Your task to perform on an android device: open sync settings in chrome Image 0: 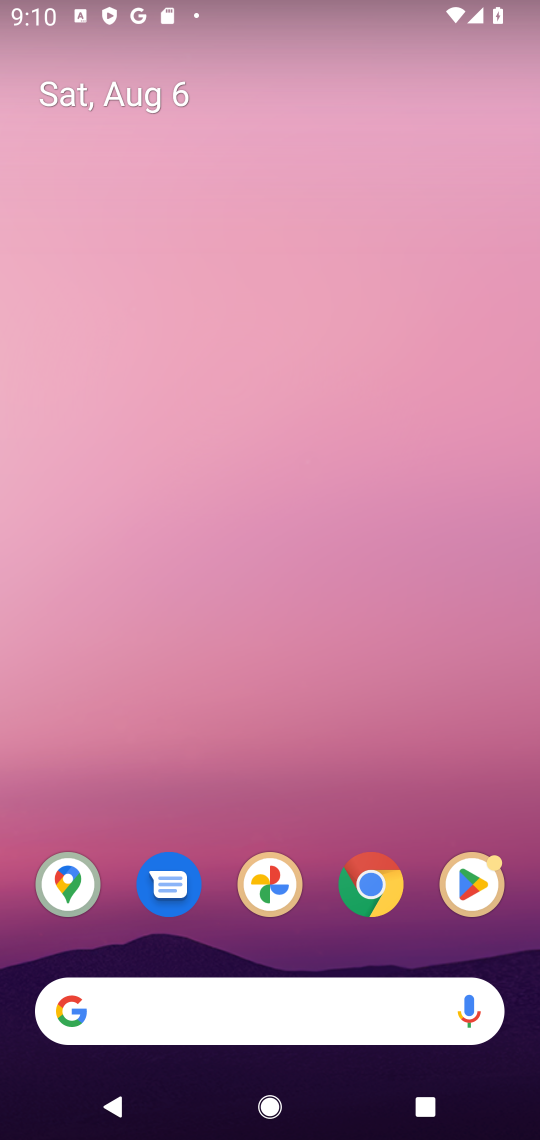
Step 0: click (374, 886)
Your task to perform on an android device: open sync settings in chrome Image 1: 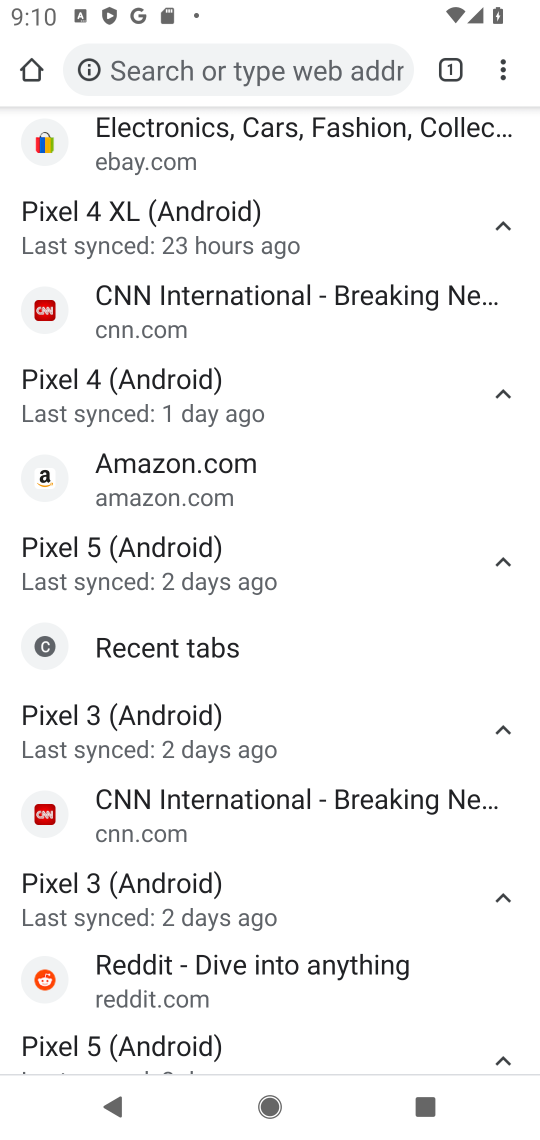
Step 1: press home button
Your task to perform on an android device: open sync settings in chrome Image 2: 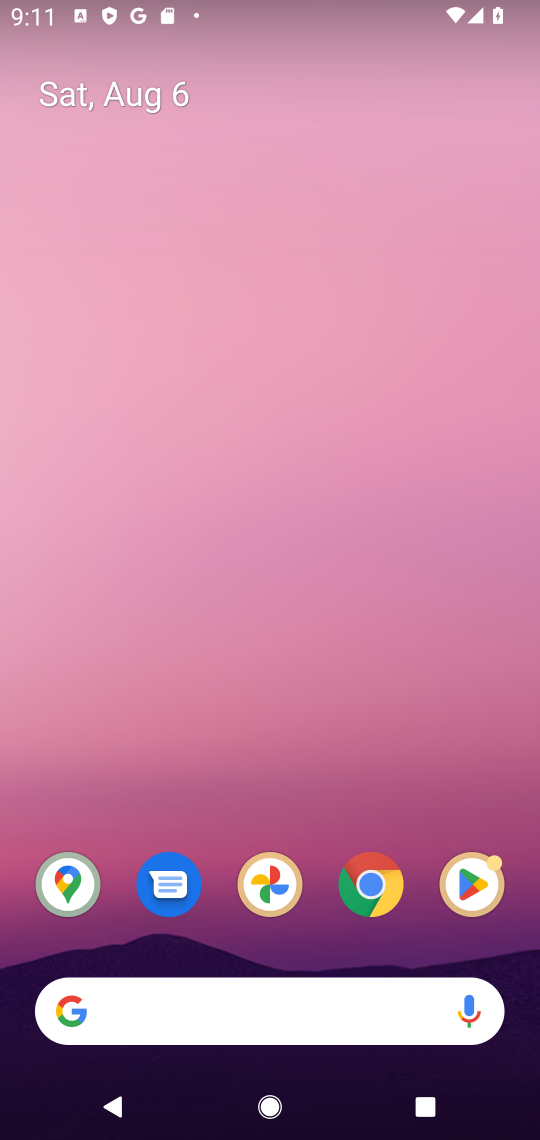
Step 2: click (372, 892)
Your task to perform on an android device: open sync settings in chrome Image 3: 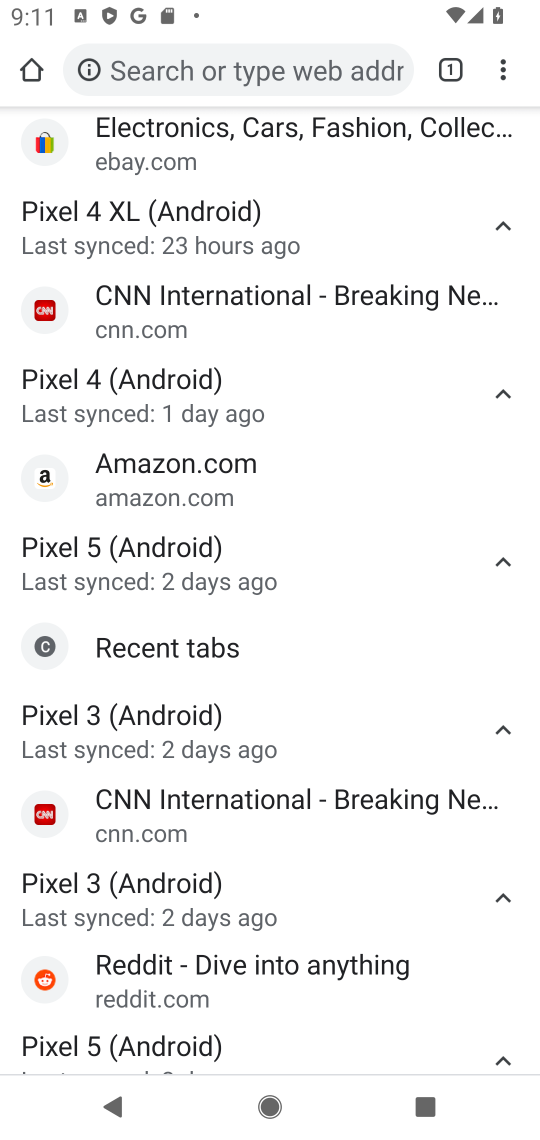
Step 3: click (501, 84)
Your task to perform on an android device: open sync settings in chrome Image 4: 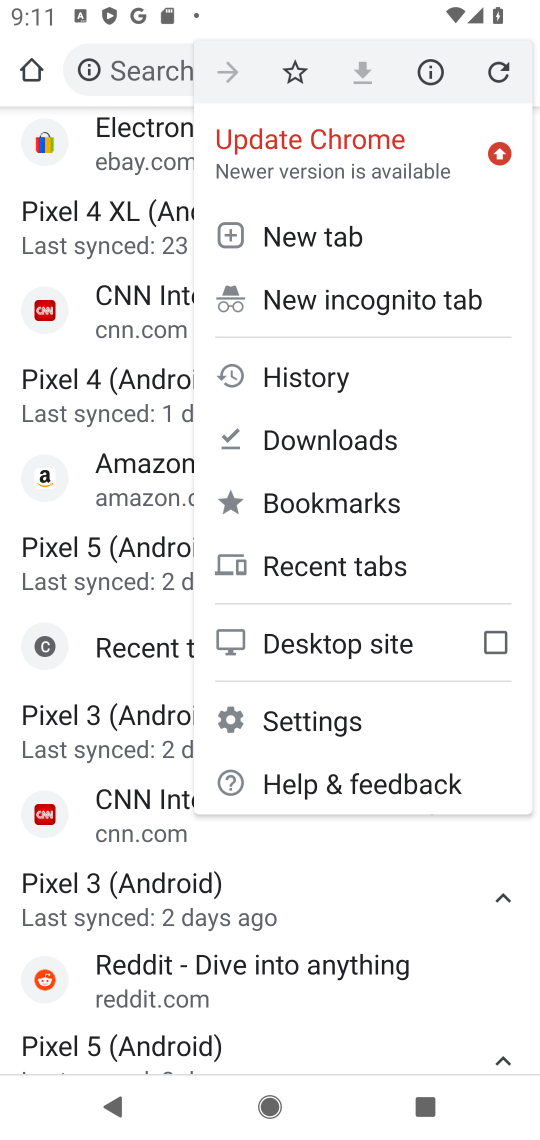
Step 4: click (318, 726)
Your task to perform on an android device: open sync settings in chrome Image 5: 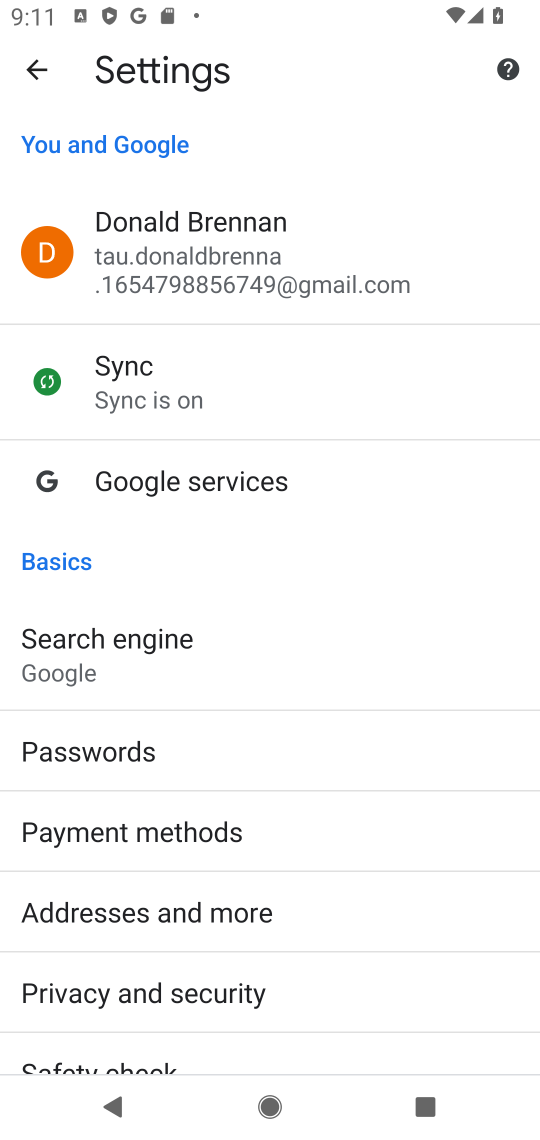
Step 5: click (151, 385)
Your task to perform on an android device: open sync settings in chrome Image 6: 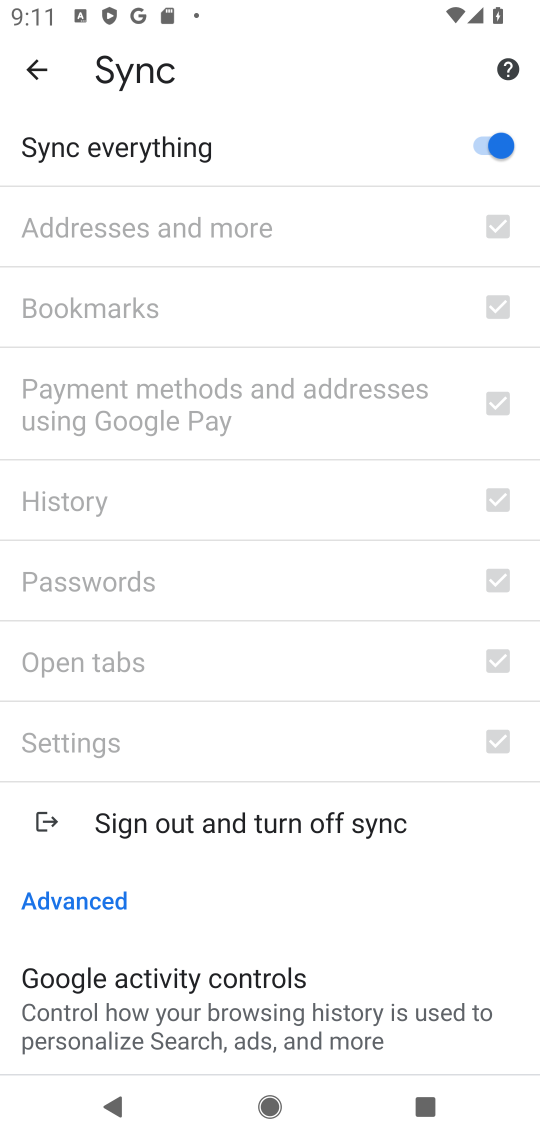
Step 6: task complete